Your task to perform on an android device: turn off sleep mode Image 0: 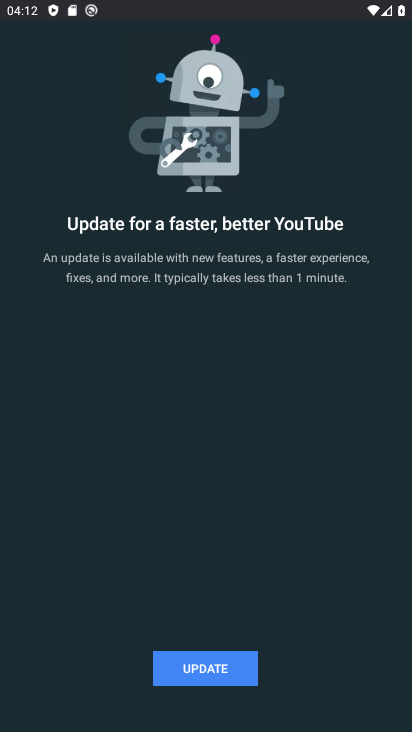
Step 0: press home button
Your task to perform on an android device: turn off sleep mode Image 1: 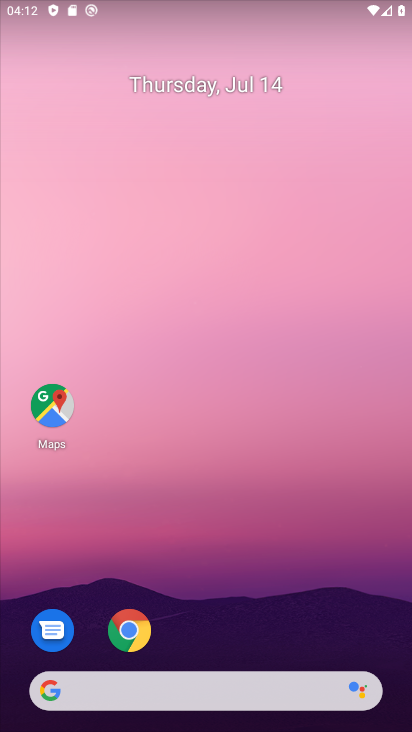
Step 1: drag from (222, 651) to (254, 72)
Your task to perform on an android device: turn off sleep mode Image 2: 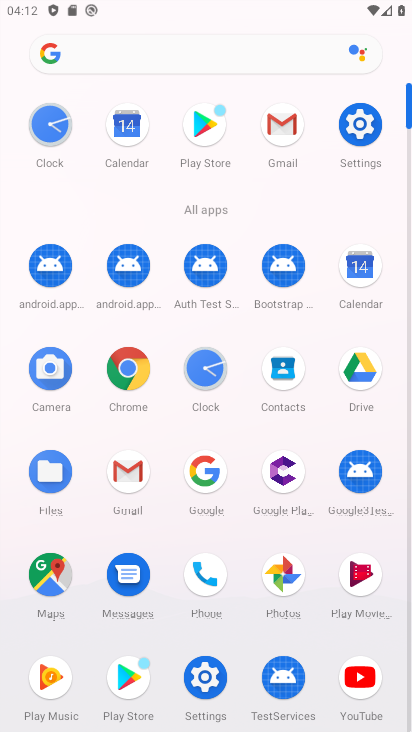
Step 2: click (361, 116)
Your task to perform on an android device: turn off sleep mode Image 3: 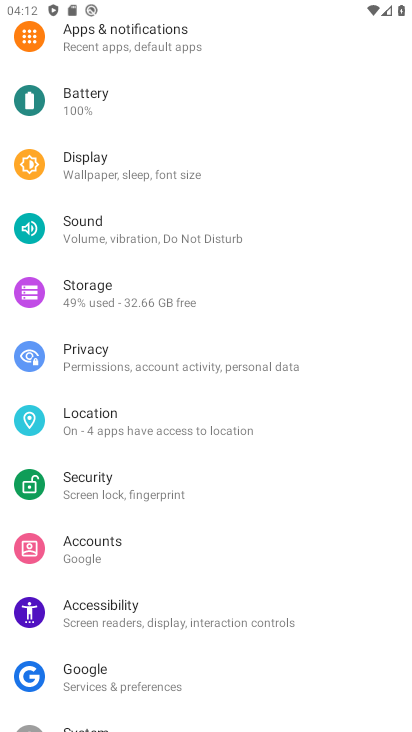
Step 3: click (135, 160)
Your task to perform on an android device: turn off sleep mode Image 4: 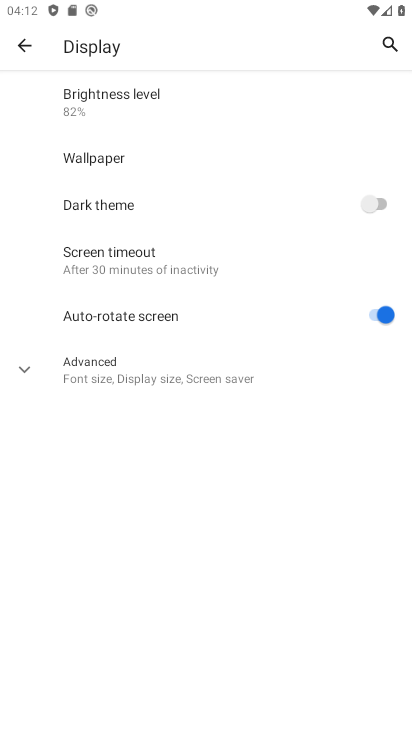
Step 4: task complete